Your task to perform on an android device: open app "Microsoft Excel" (install if not already installed) and enter user name: "kidnappers@icloud.com" and password: "Bessemerizes" Image 0: 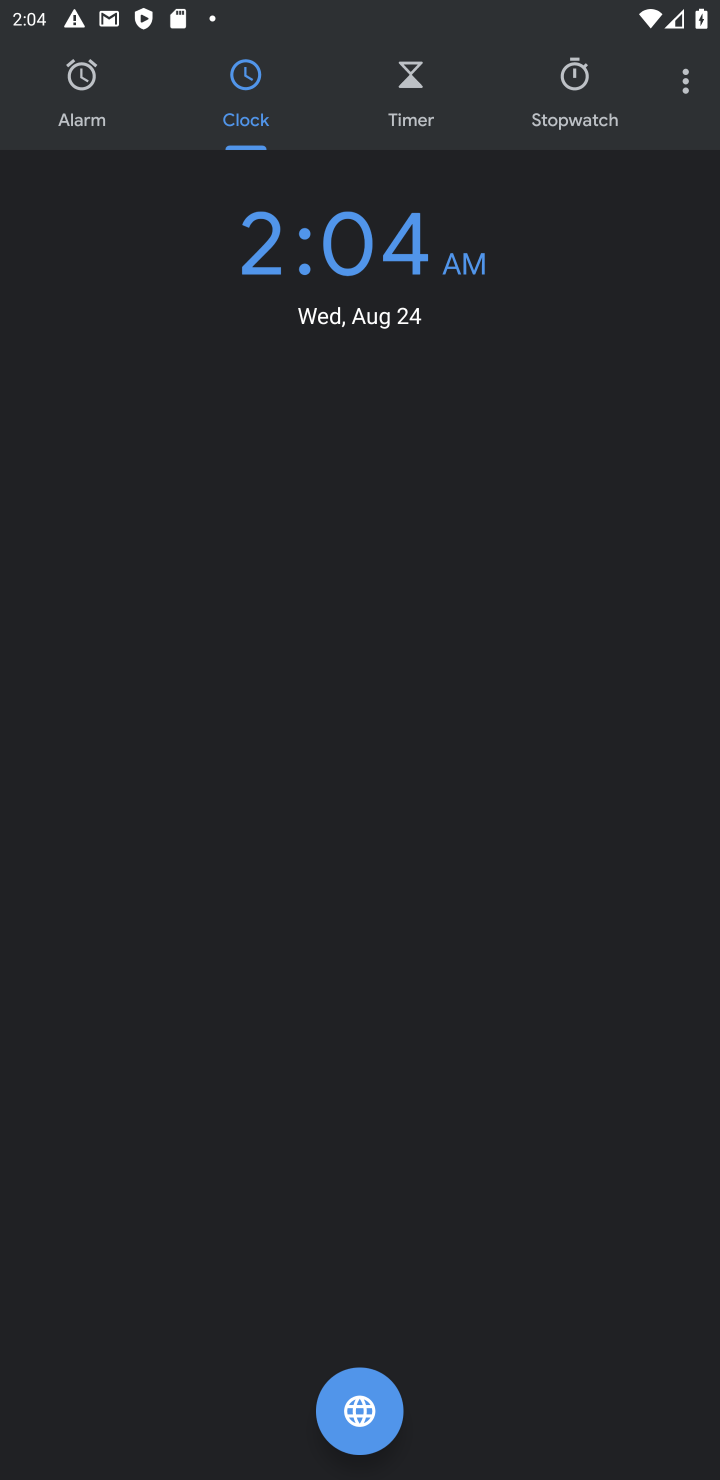
Step 0: press home button
Your task to perform on an android device: open app "Microsoft Excel" (install if not already installed) and enter user name: "kidnappers@icloud.com" and password: "Bessemerizes" Image 1: 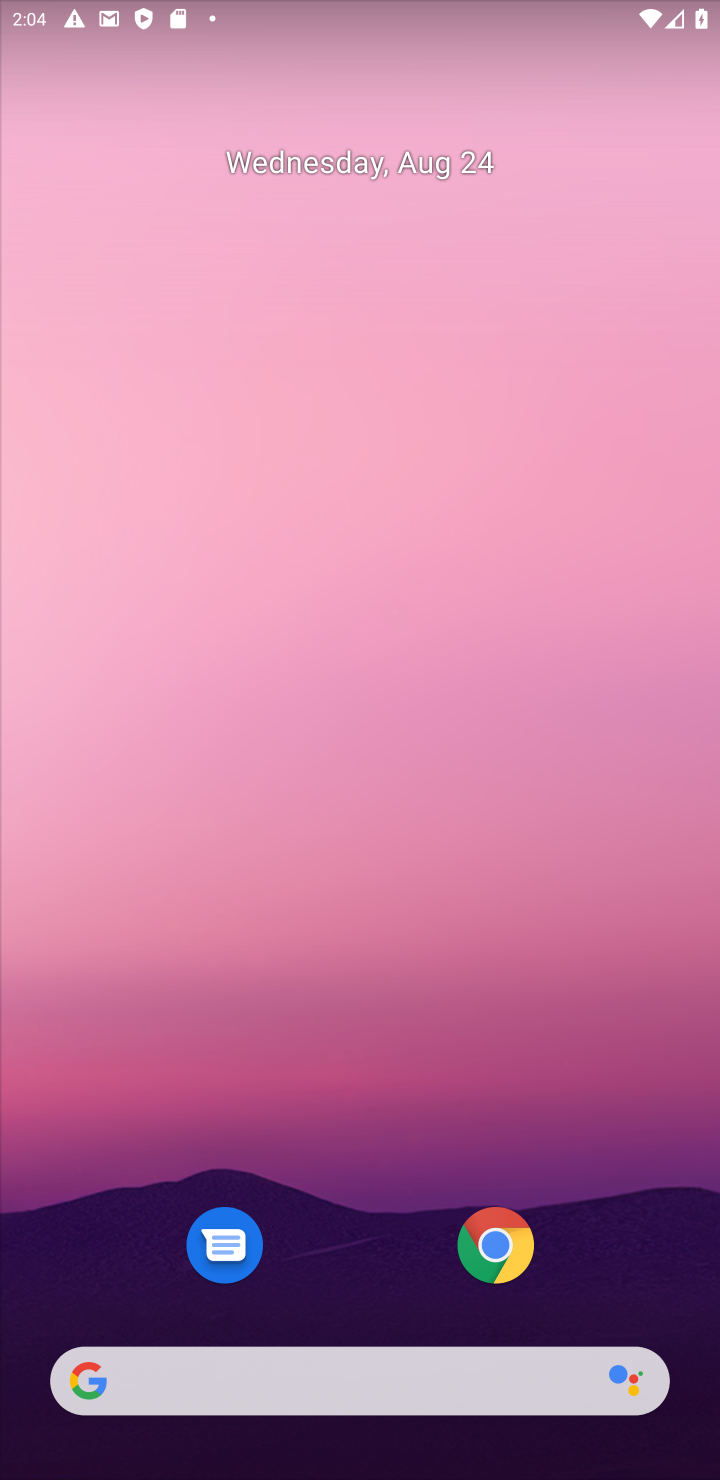
Step 1: drag from (398, 1274) to (573, 82)
Your task to perform on an android device: open app "Microsoft Excel" (install if not already installed) and enter user name: "kidnappers@icloud.com" and password: "Bessemerizes" Image 2: 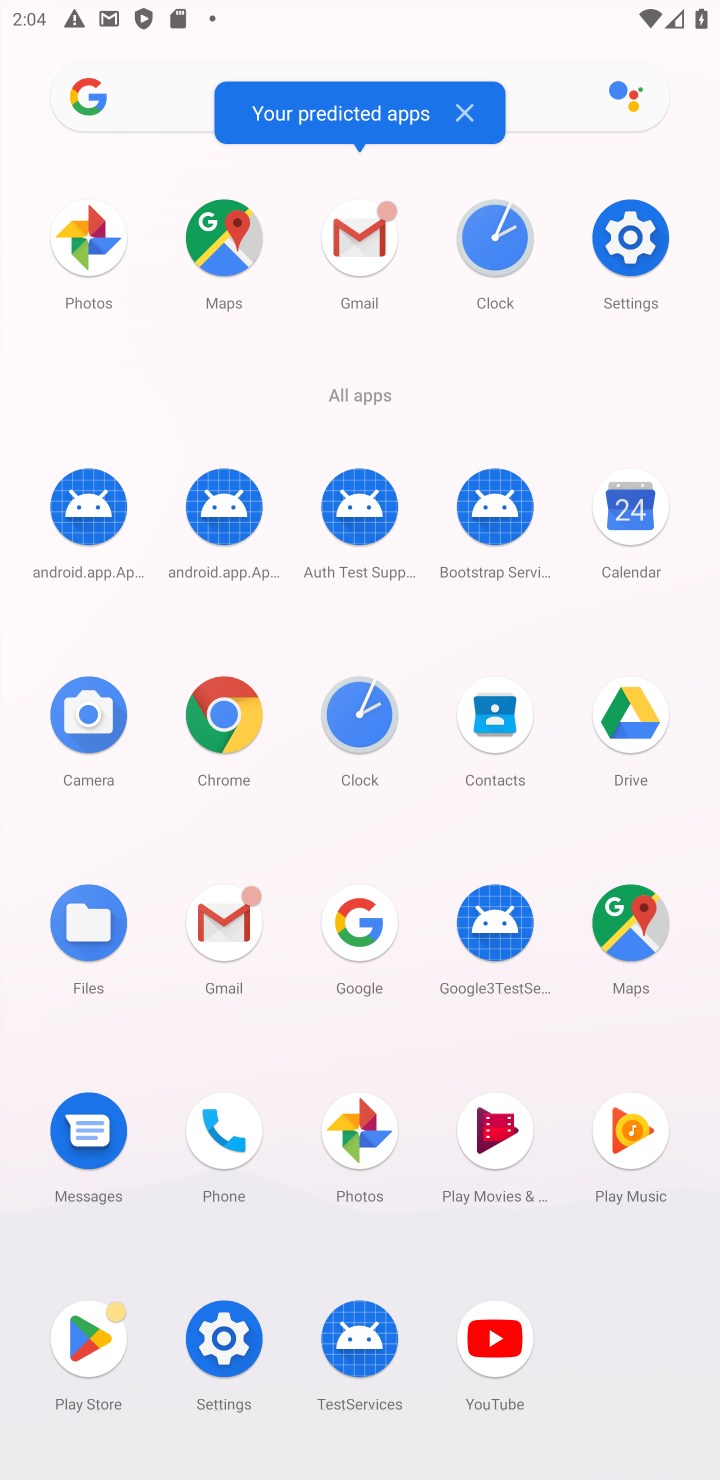
Step 2: click (90, 1343)
Your task to perform on an android device: open app "Microsoft Excel" (install if not already installed) and enter user name: "kidnappers@icloud.com" and password: "Bessemerizes" Image 3: 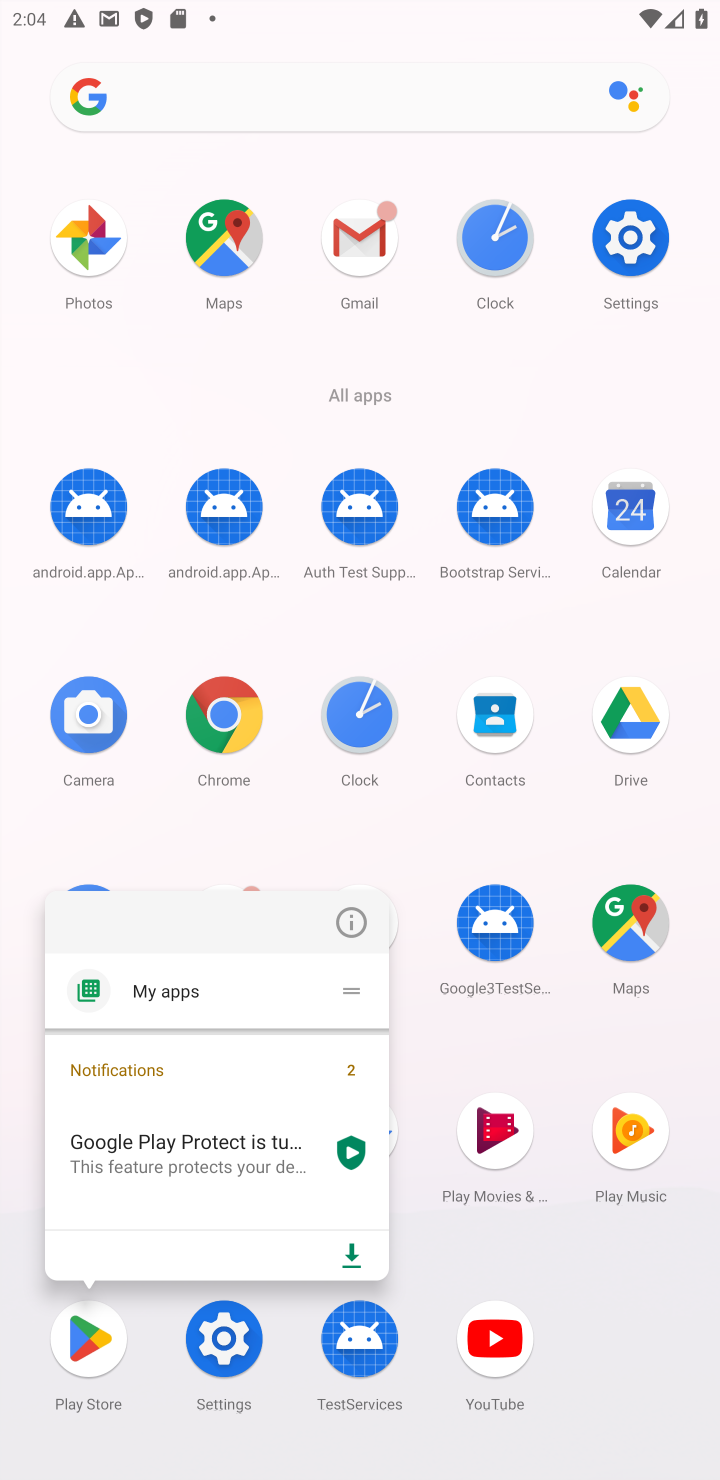
Step 3: click (90, 1344)
Your task to perform on an android device: open app "Microsoft Excel" (install if not already installed) and enter user name: "kidnappers@icloud.com" and password: "Bessemerizes" Image 4: 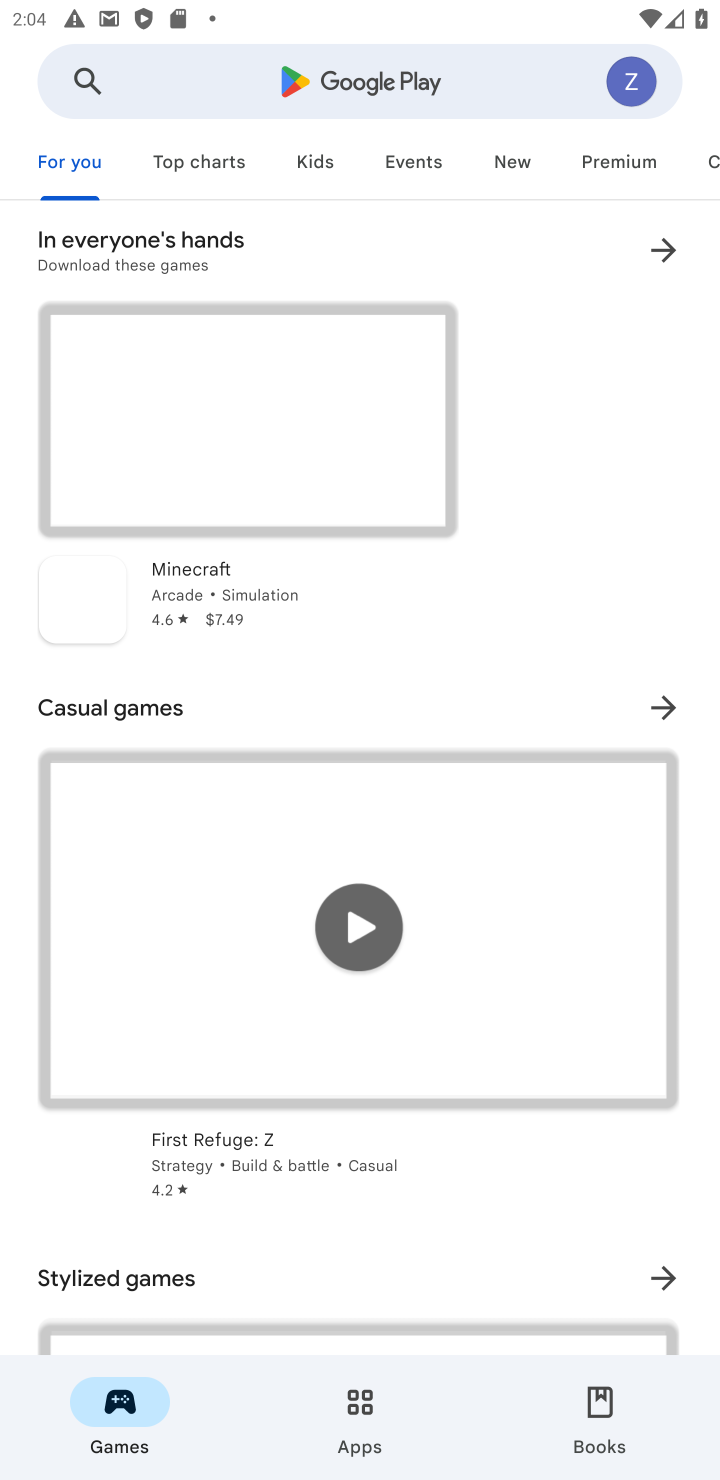
Step 4: click (407, 75)
Your task to perform on an android device: open app "Microsoft Excel" (install if not already installed) and enter user name: "kidnappers@icloud.com" and password: "Bessemerizes" Image 5: 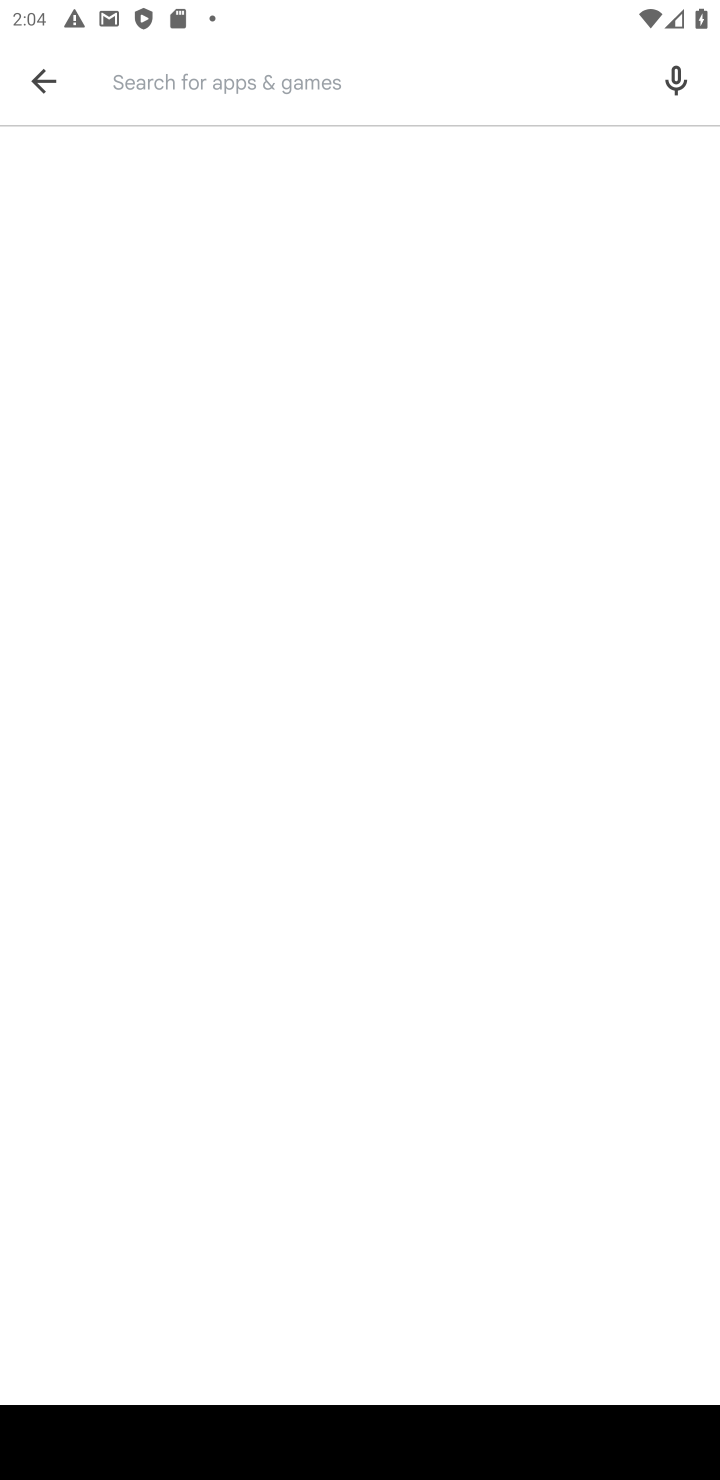
Step 5: type "Microsoft Excel"
Your task to perform on an android device: open app "Microsoft Excel" (install if not already installed) and enter user name: "kidnappers@icloud.com" and password: "Bessemerizes" Image 6: 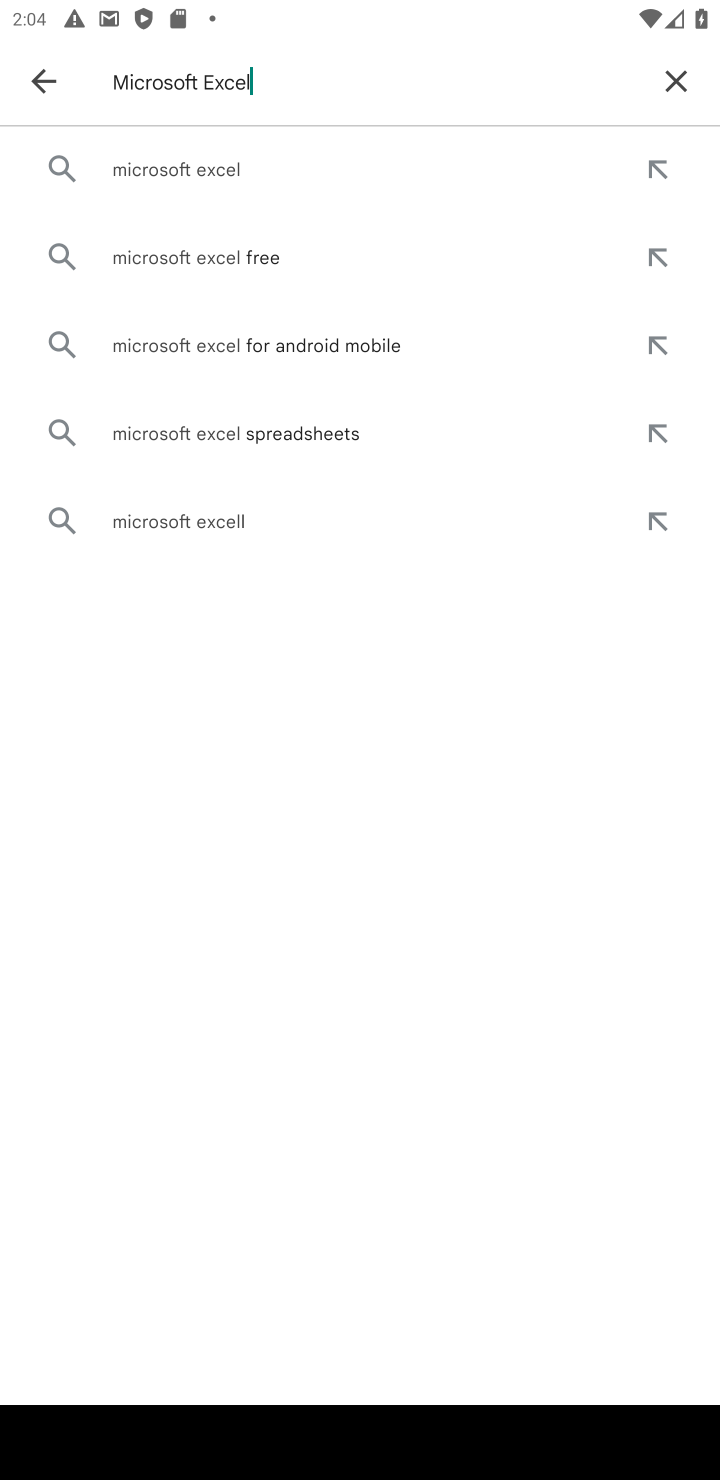
Step 6: click (137, 173)
Your task to perform on an android device: open app "Microsoft Excel" (install if not already installed) and enter user name: "kidnappers@icloud.com" and password: "Bessemerizes" Image 7: 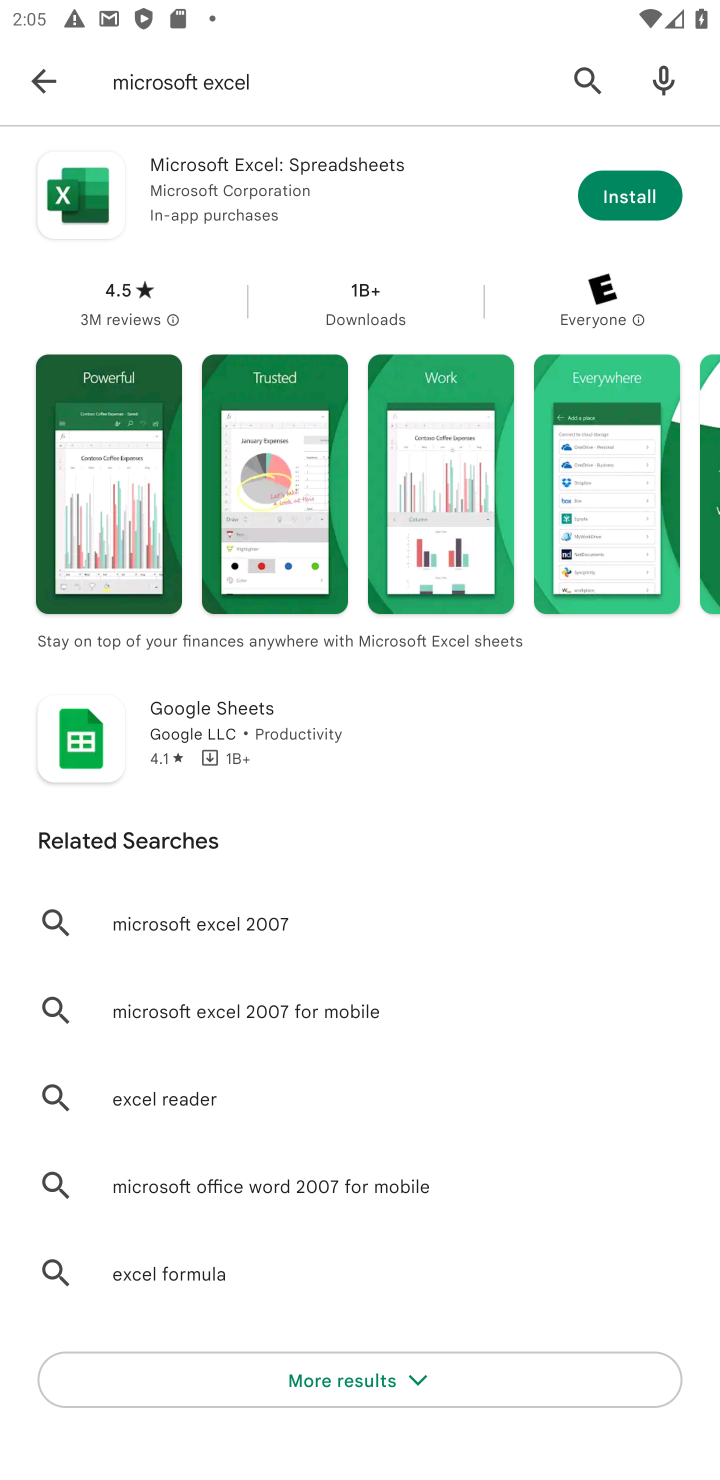
Step 7: click (634, 202)
Your task to perform on an android device: open app "Microsoft Excel" (install if not already installed) and enter user name: "kidnappers@icloud.com" and password: "Bessemerizes" Image 8: 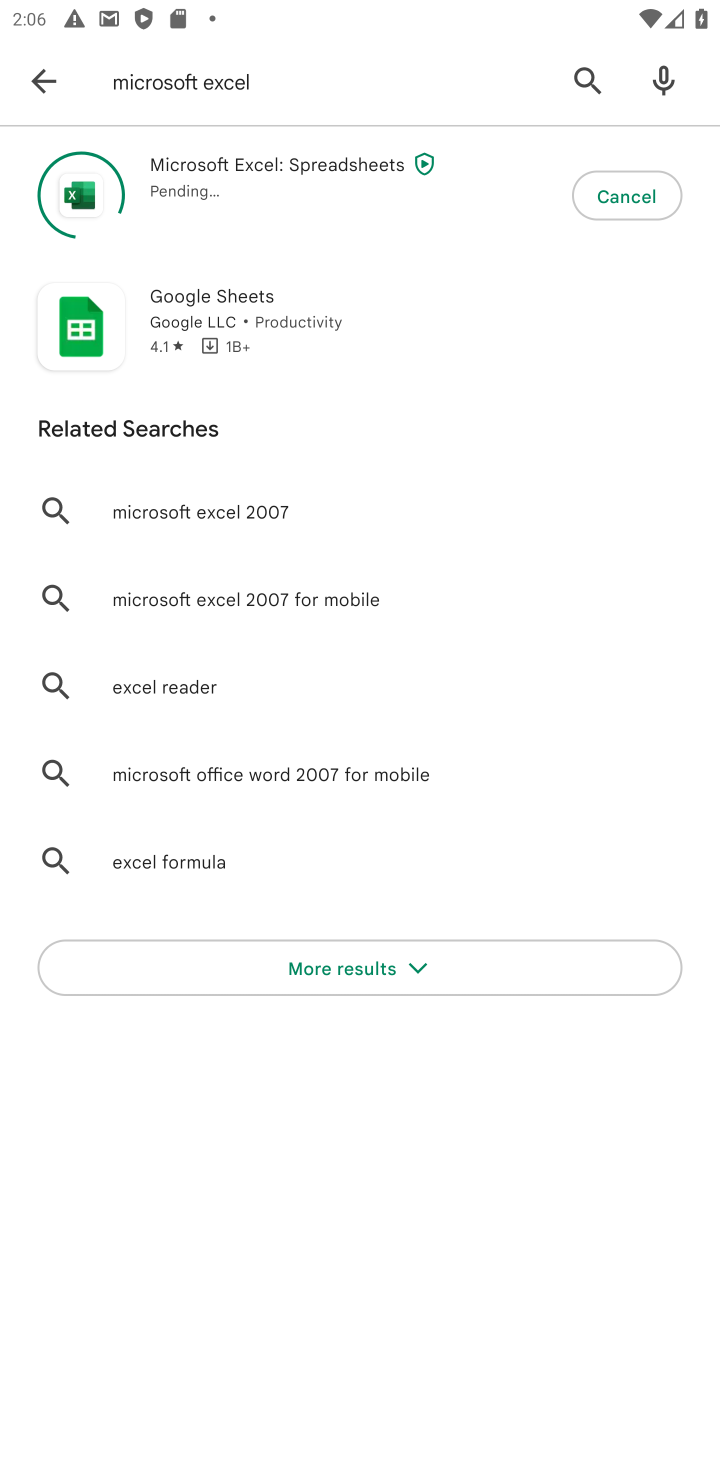
Step 8: click (50, 80)
Your task to perform on an android device: open app "Microsoft Excel" (install if not already installed) and enter user name: "kidnappers@icloud.com" and password: "Bessemerizes" Image 9: 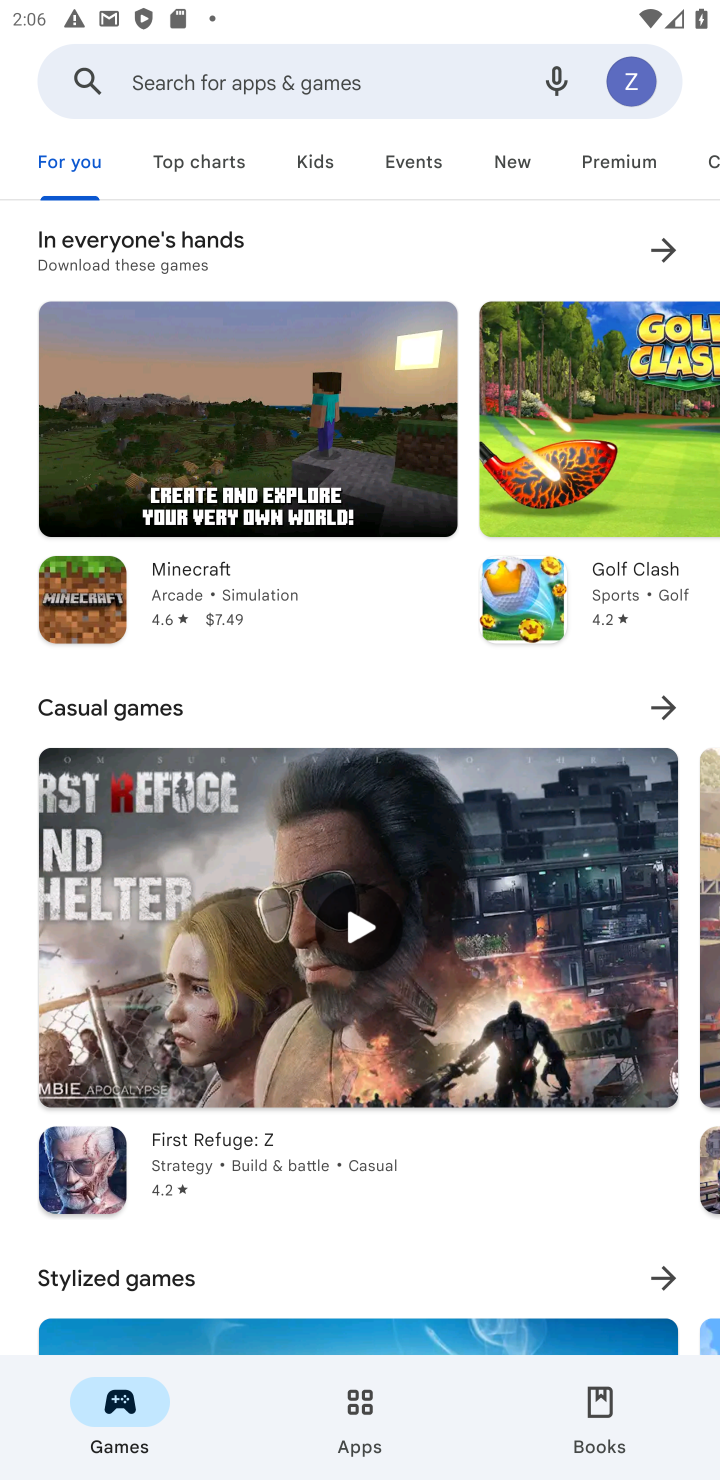
Step 9: click (324, 78)
Your task to perform on an android device: open app "Microsoft Excel" (install if not already installed) and enter user name: "kidnappers@icloud.com" and password: "Bessemerizes" Image 10: 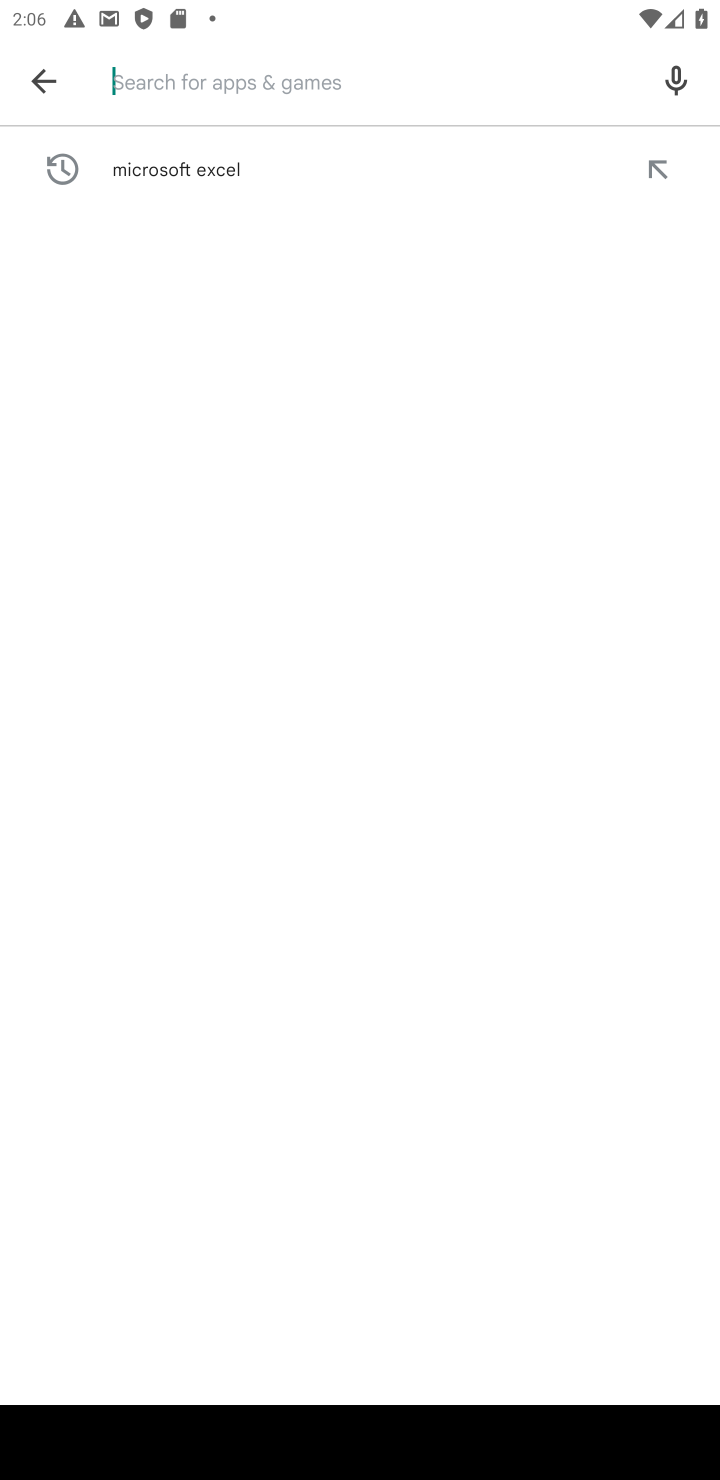
Step 10: click (179, 164)
Your task to perform on an android device: open app "Microsoft Excel" (install if not already installed) and enter user name: "kidnappers@icloud.com" and password: "Bessemerizes" Image 11: 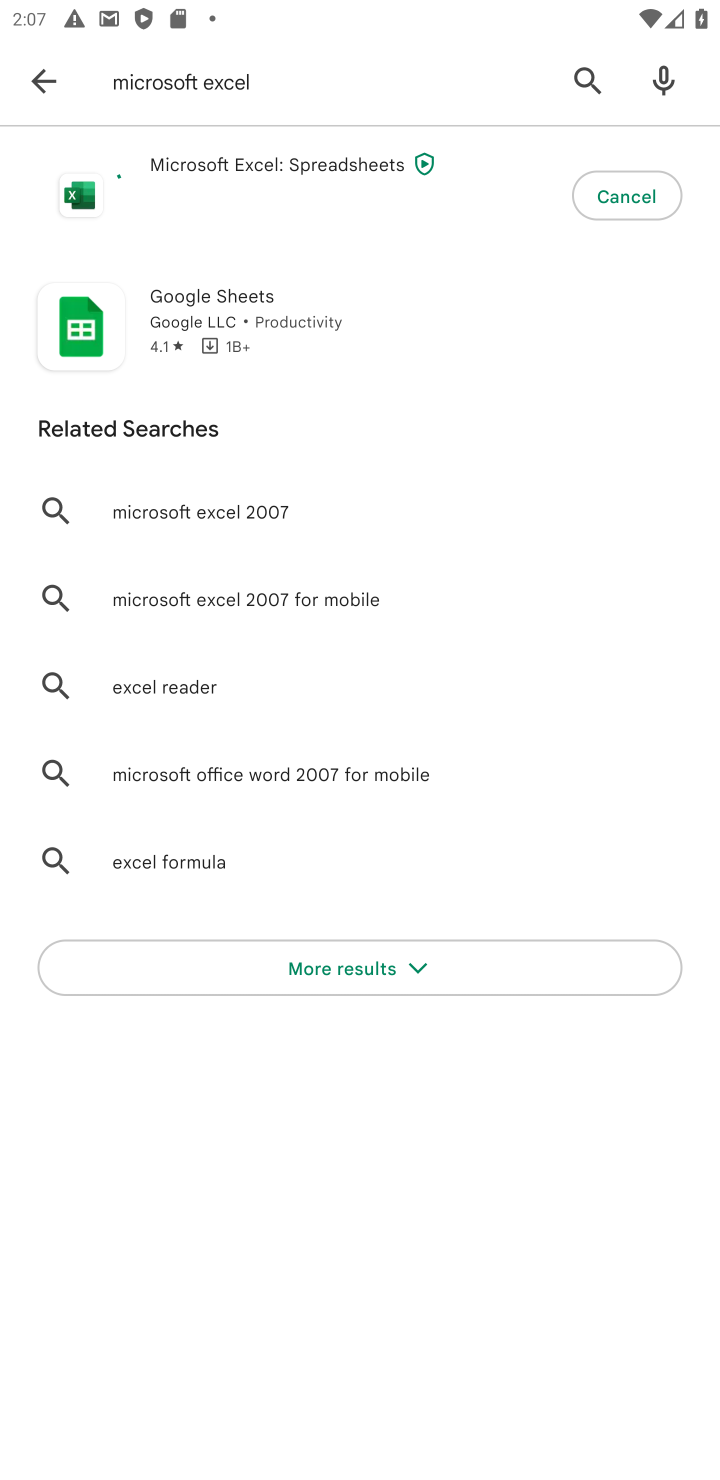
Step 11: task complete